Your task to perform on an android device: toggle sleep mode Image 0: 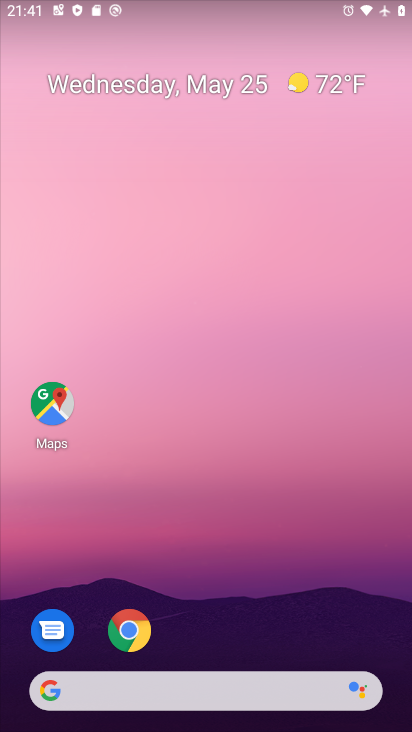
Step 0: drag from (205, 653) to (205, 218)
Your task to perform on an android device: toggle sleep mode Image 1: 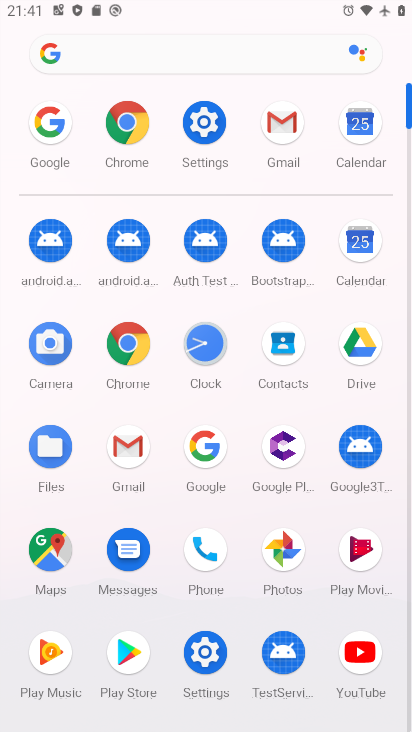
Step 1: click (216, 120)
Your task to perform on an android device: toggle sleep mode Image 2: 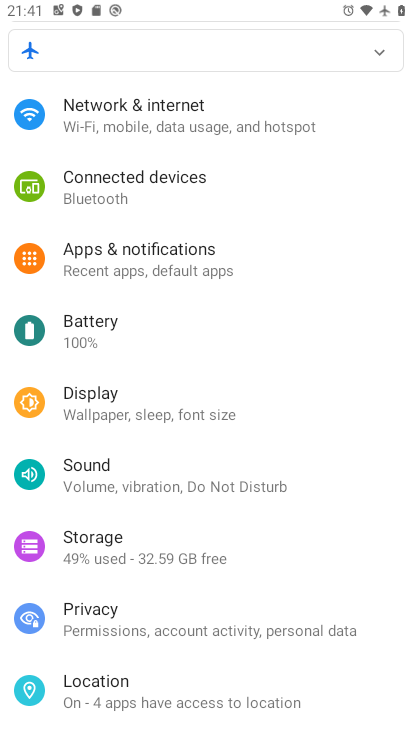
Step 2: click (132, 401)
Your task to perform on an android device: toggle sleep mode Image 3: 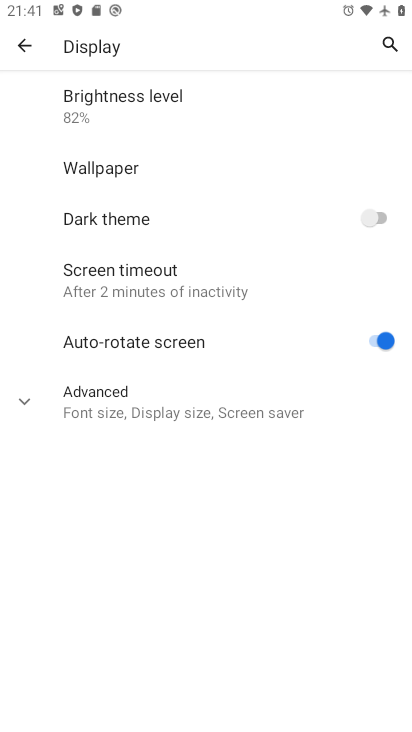
Step 3: click (157, 286)
Your task to perform on an android device: toggle sleep mode Image 4: 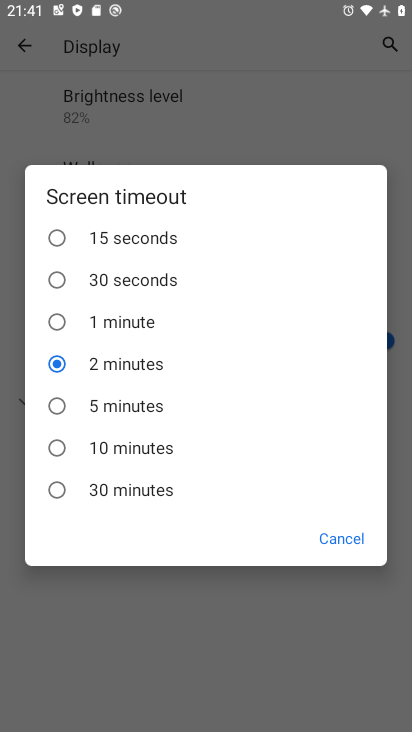
Step 4: click (124, 446)
Your task to perform on an android device: toggle sleep mode Image 5: 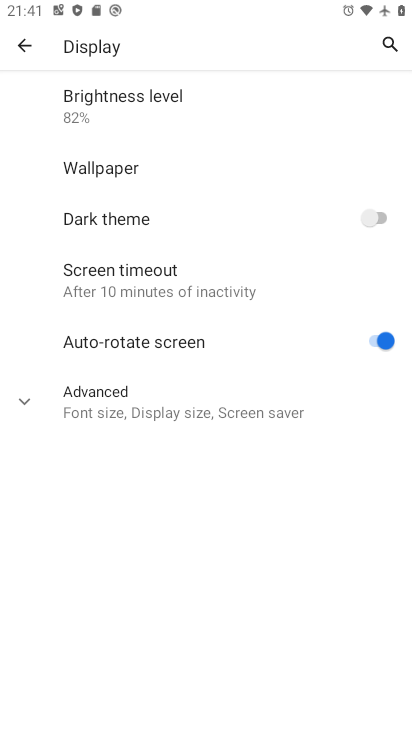
Step 5: task complete